Your task to perform on an android device: see tabs open on other devices in the chrome app Image 0: 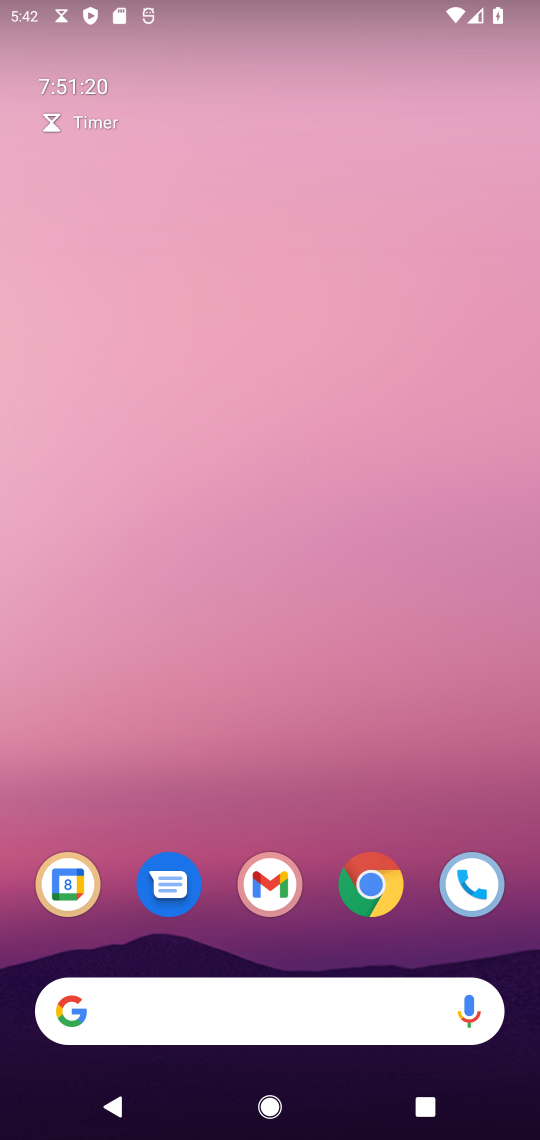
Step 0: drag from (424, 830) to (351, 148)
Your task to perform on an android device: see tabs open on other devices in the chrome app Image 1: 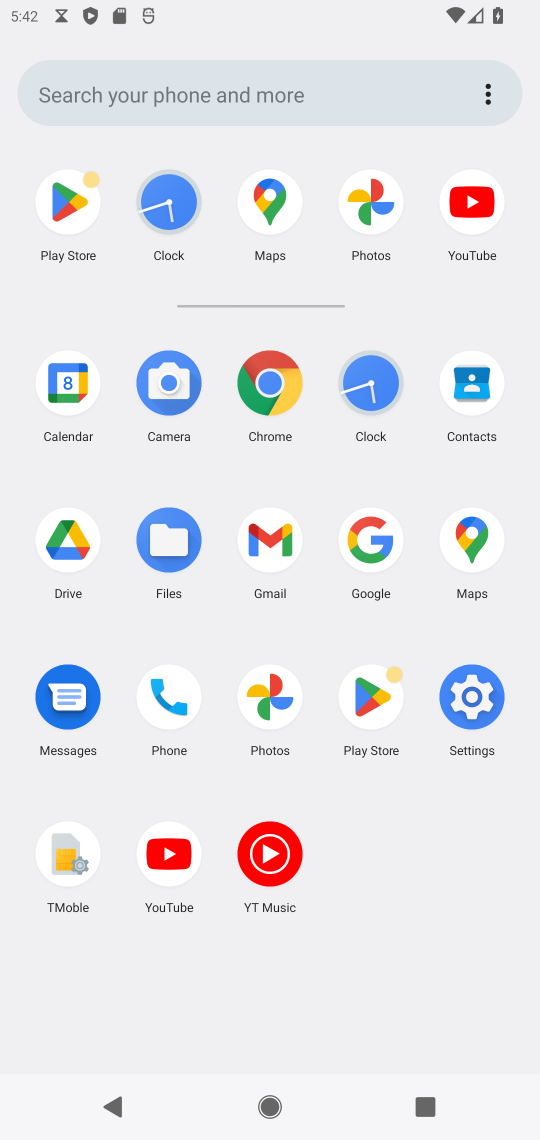
Step 1: click (278, 374)
Your task to perform on an android device: see tabs open on other devices in the chrome app Image 2: 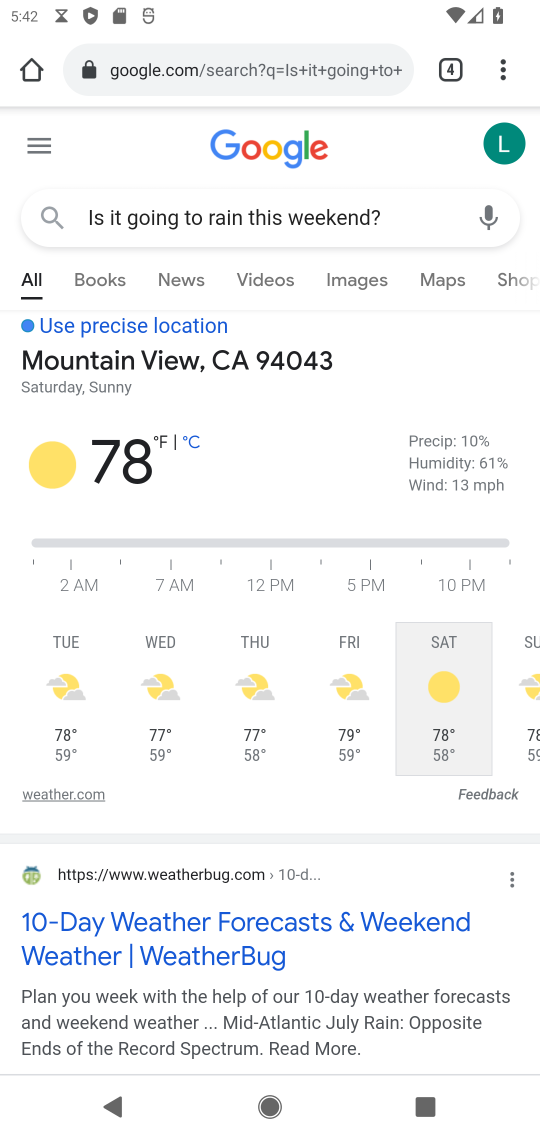
Step 2: click (520, 73)
Your task to perform on an android device: see tabs open on other devices in the chrome app Image 3: 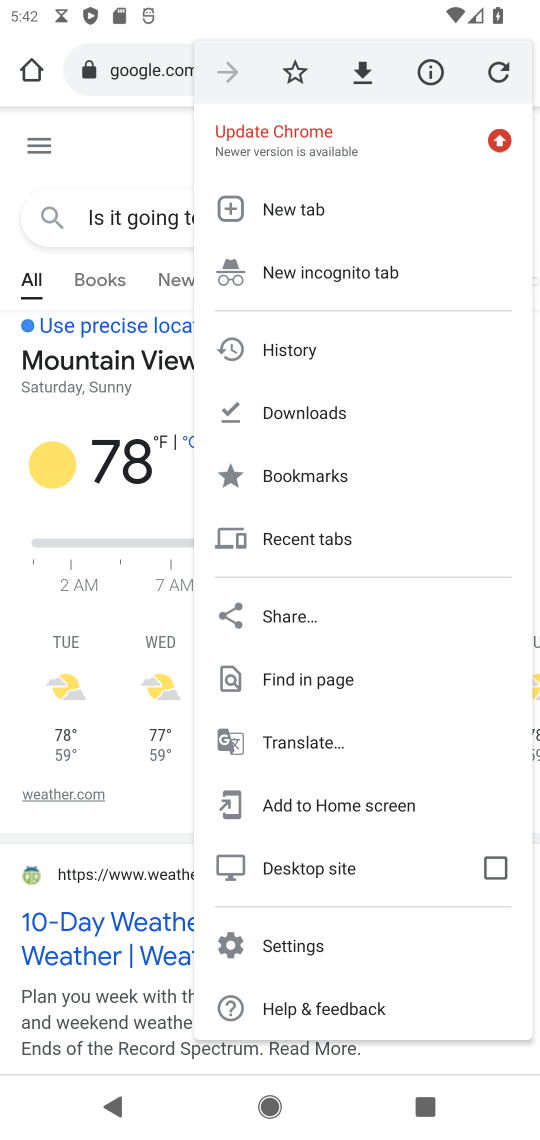
Step 3: click (346, 542)
Your task to perform on an android device: see tabs open on other devices in the chrome app Image 4: 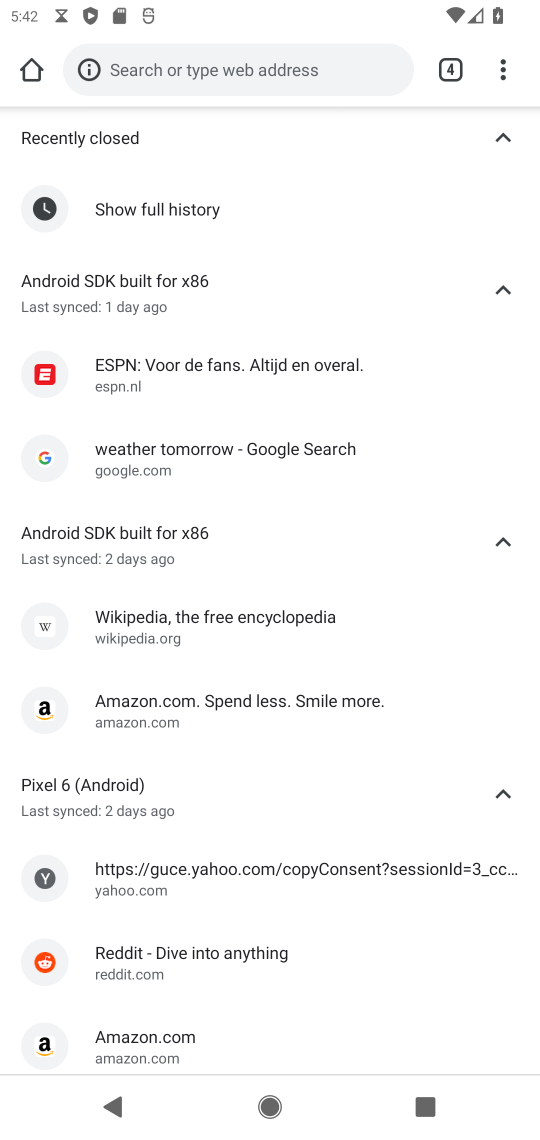
Step 4: task complete